Your task to perform on an android device: delete location history Image 0: 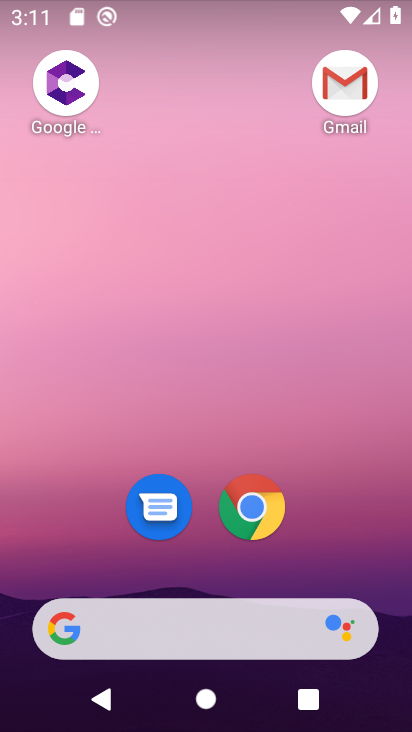
Step 0: drag from (354, 474) to (328, 18)
Your task to perform on an android device: delete location history Image 1: 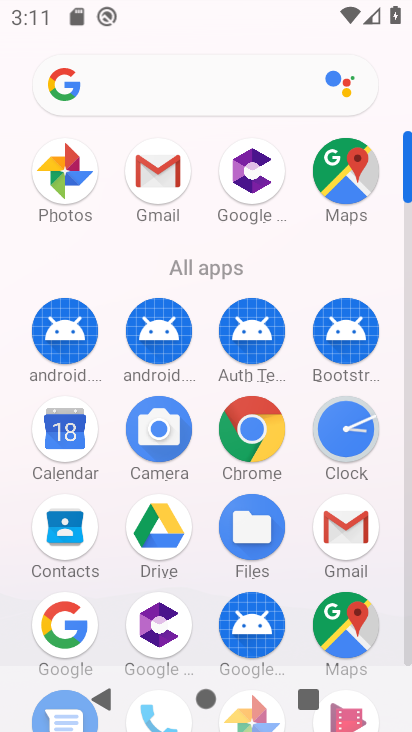
Step 1: click (330, 620)
Your task to perform on an android device: delete location history Image 2: 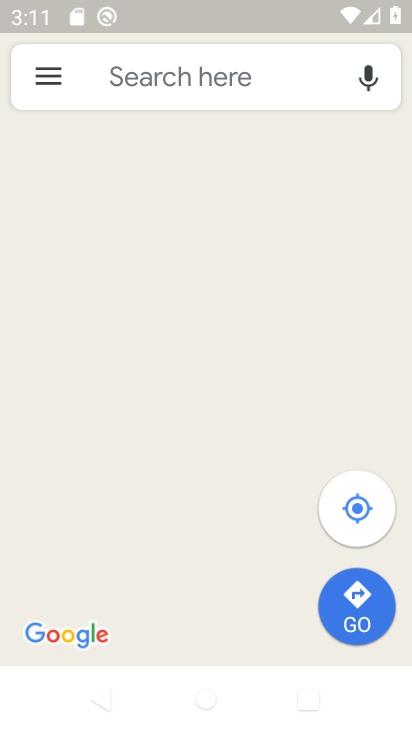
Step 2: click (43, 69)
Your task to perform on an android device: delete location history Image 3: 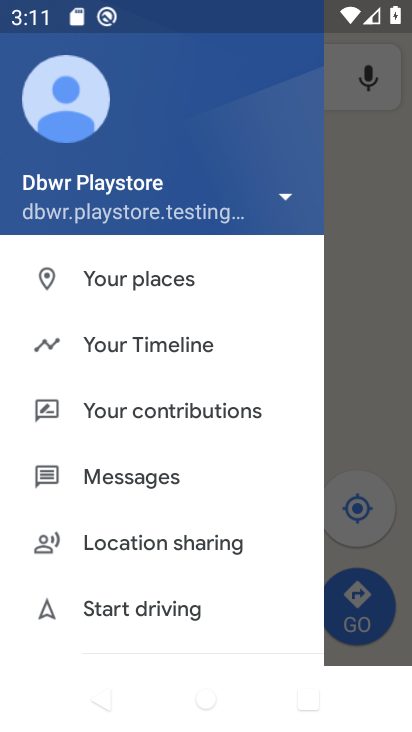
Step 3: click (134, 334)
Your task to perform on an android device: delete location history Image 4: 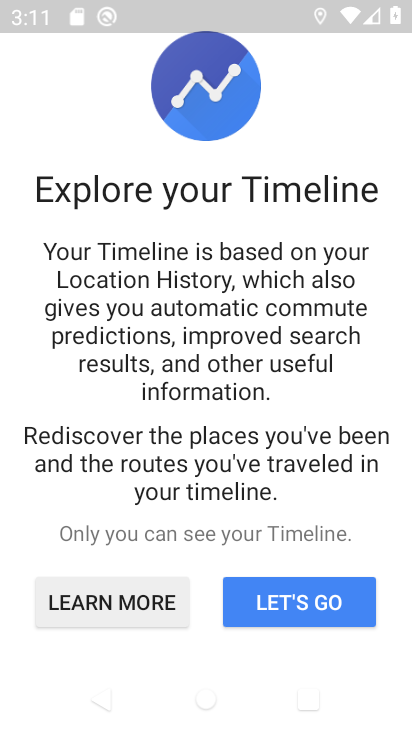
Step 4: drag from (265, 500) to (308, 203)
Your task to perform on an android device: delete location history Image 5: 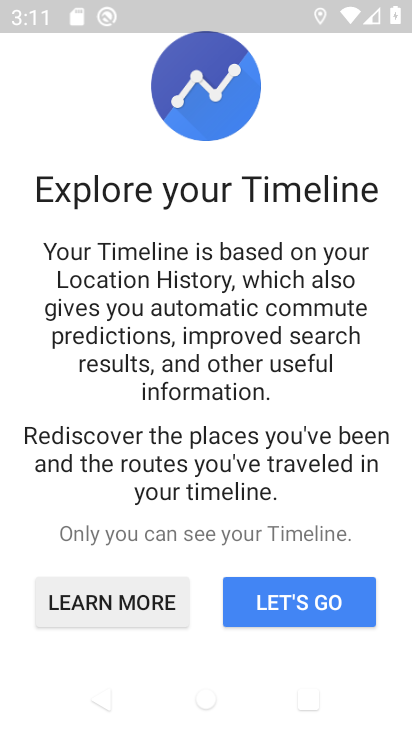
Step 5: click (288, 607)
Your task to perform on an android device: delete location history Image 6: 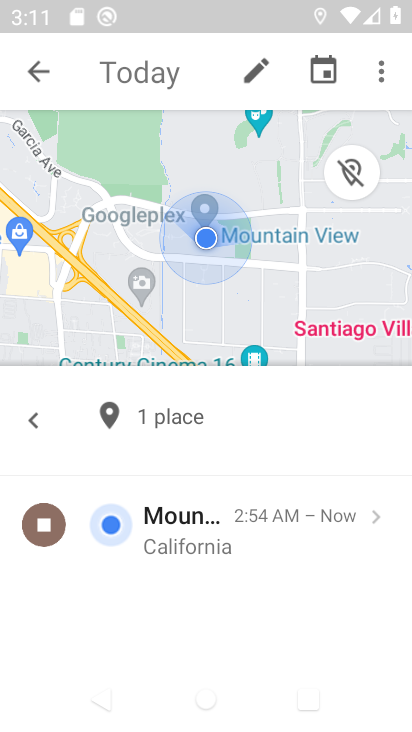
Step 6: click (384, 65)
Your task to perform on an android device: delete location history Image 7: 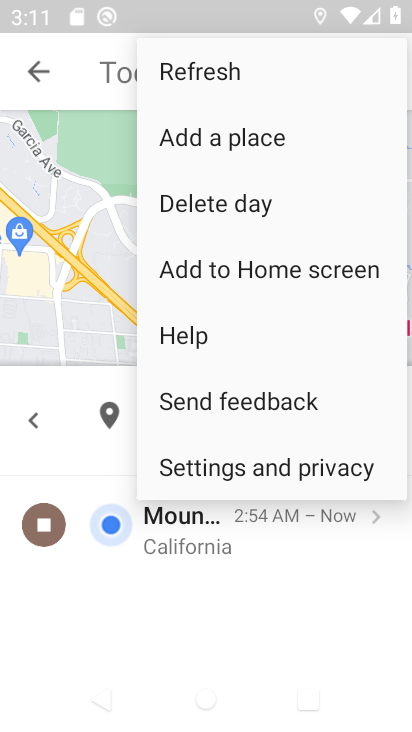
Step 7: click (250, 455)
Your task to perform on an android device: delete location history Image 8: 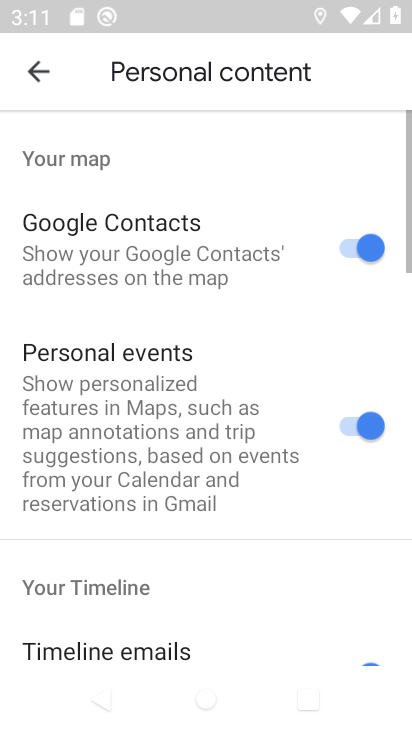
Step 8: drag from (191, 542) to (202, 221)
Your task to perform on an android device: delete location history Image 9: 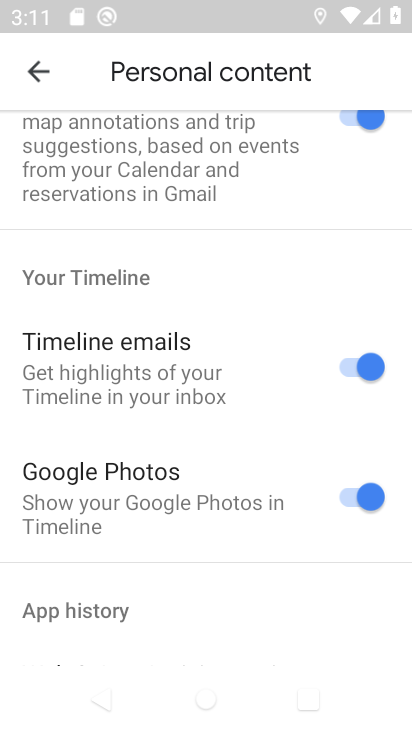
Step 9: drag from (167, 570) to (187, 273)
Your task to perform on an android device: delete location history Image 10: 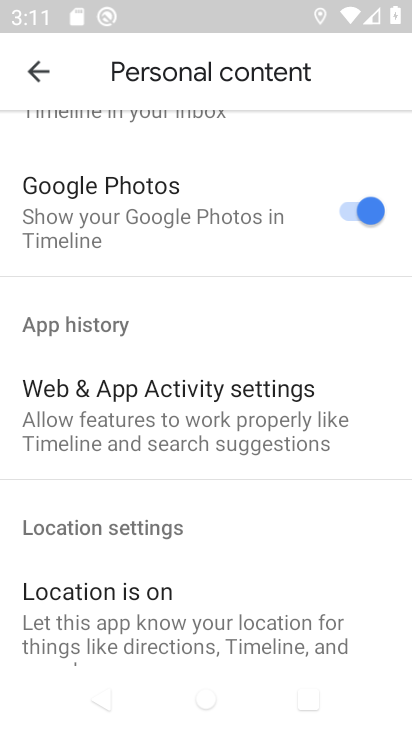
Step 10: drag from (140, 581) to (154, 318)
Your task to perform on an android device: delete location history Image 11: 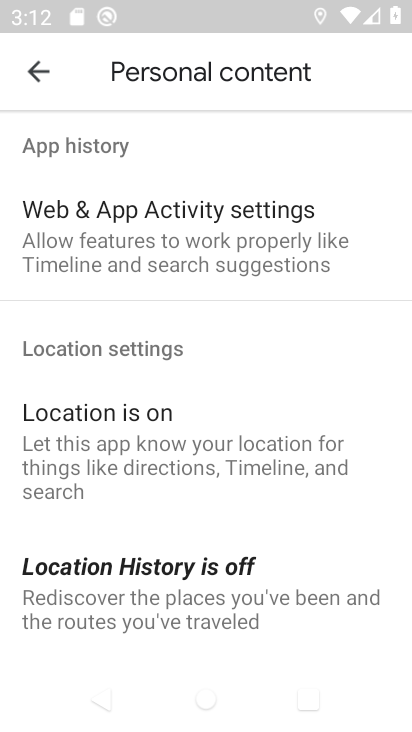
Step 11: drag from (221, 533) to (248, 280)
Your task to perform on an android device: delete location history Image 12: 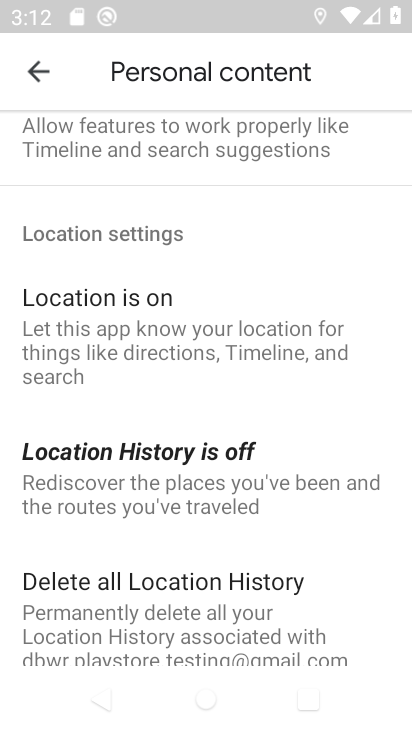
Step 12: click (236, 603)
Your task to perform on an android device: delete location history Image 13: 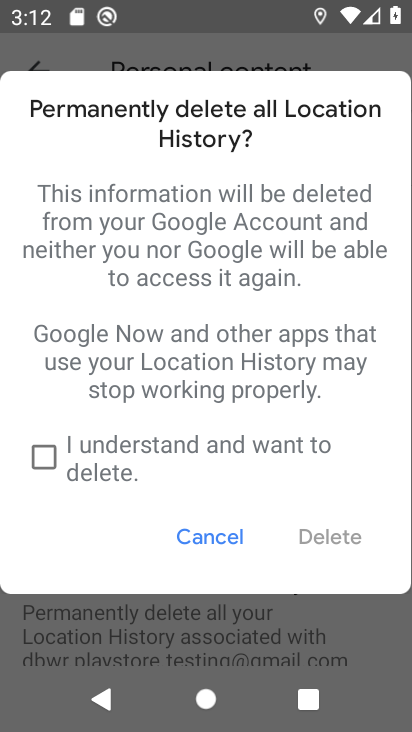
Step 13: click (37, 457)
Your task to perform on an android device: delete location history Image 14: 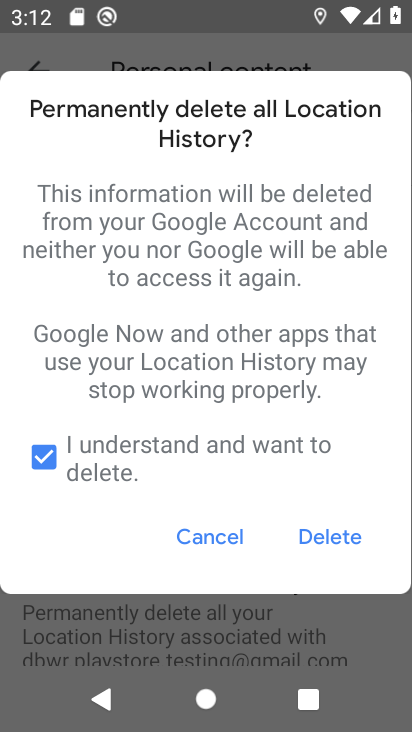
Step 14: click (341, 535)
Your task to perform on an android device: delete location history Image 15: 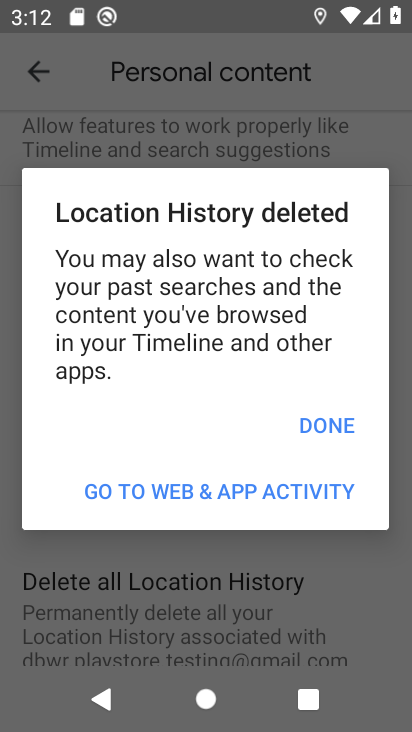
Step 15: click (332, 429)
Your task to perform on an android device: delete location history Image 16: 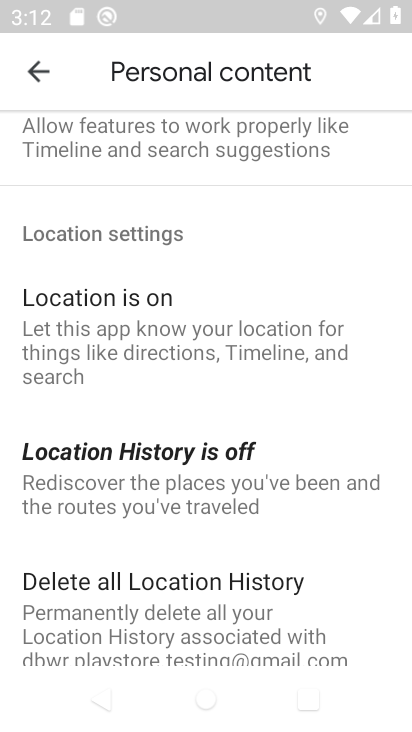
Step 16: task complete